Your task to perform on an android device: Go to wifi settings Image 0: 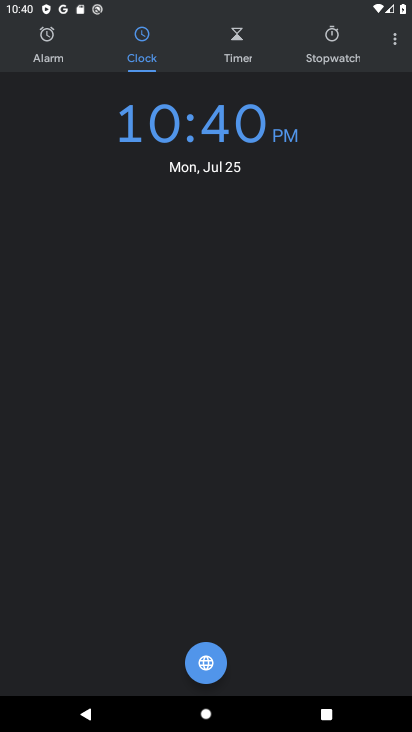
Step 0: press home button
Your task to perform on an android device: Go to wifi settings Image 1: 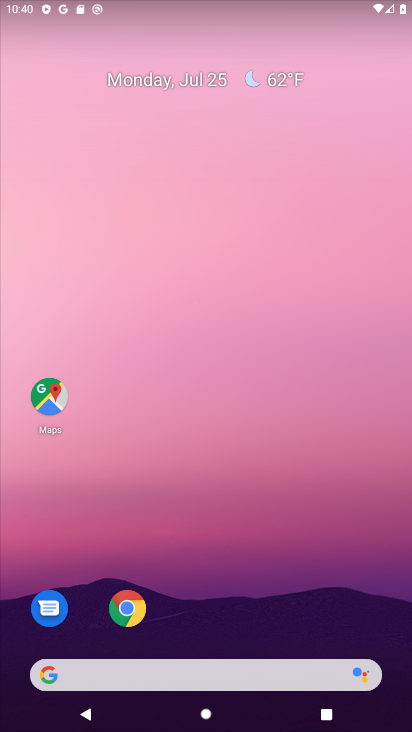
Step 1: drag from (252, 621) to (259, 226)
Your task to perform on an android device: Go to wifi settings Image 2: 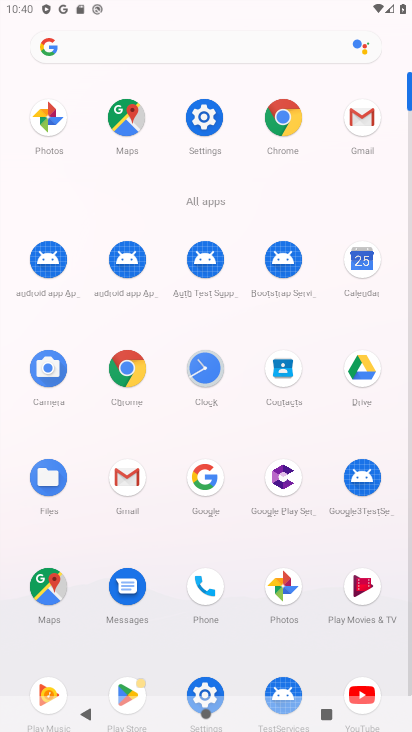
Step 2: click (210, 115)
Your task to perform on an android device: Go to wifi settings Image 3: 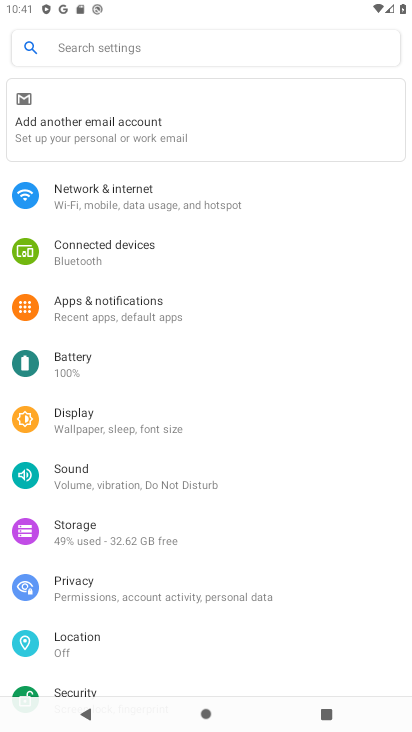
Step 3: click (70, 205)
Your task to perform on an android device: Go to wifi settings Image 4: 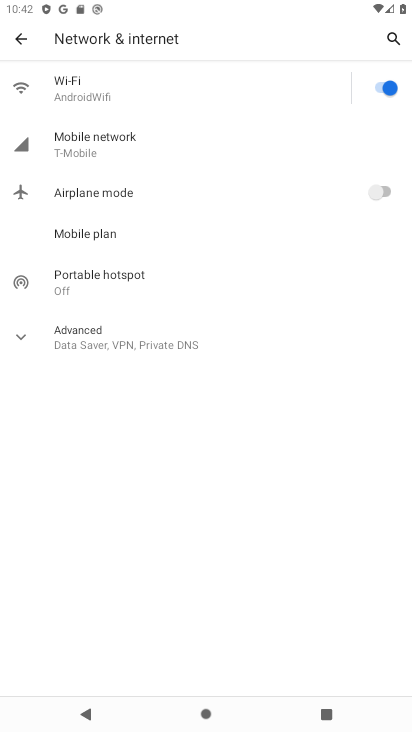
Step 4: task complete